Your task to perform on an android device: choose inbox layout in the gmail app Image 0: 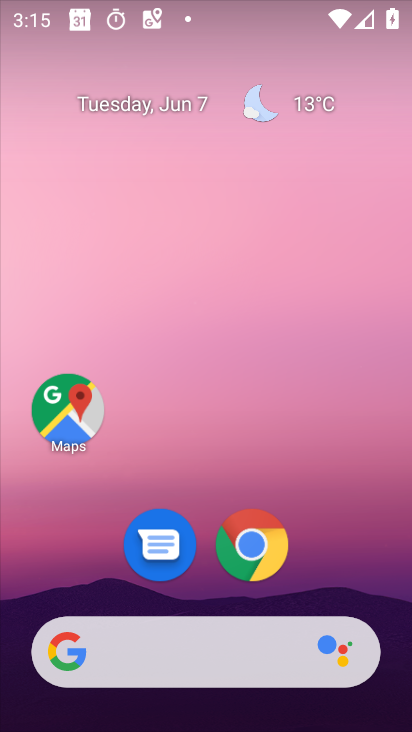
Step 0: drag from (354, 574) to (184, 45)
Your task to perform on an android device: choose inbox layout in the gmail app Image 1: 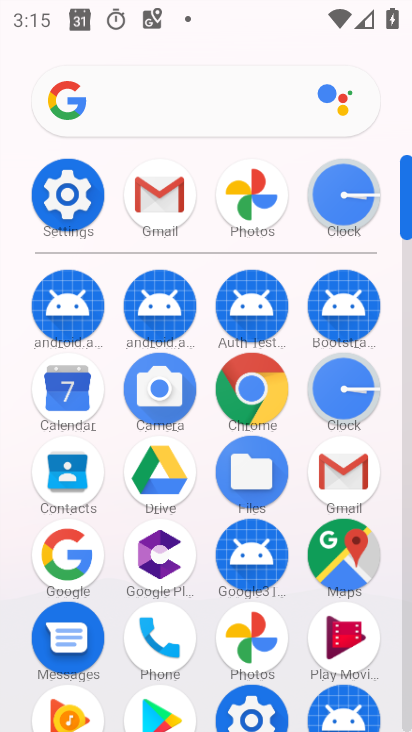
Step 1: click (345, 468)
Your task to perform on an android device: choose inbox layout in the gmail app Image 2: 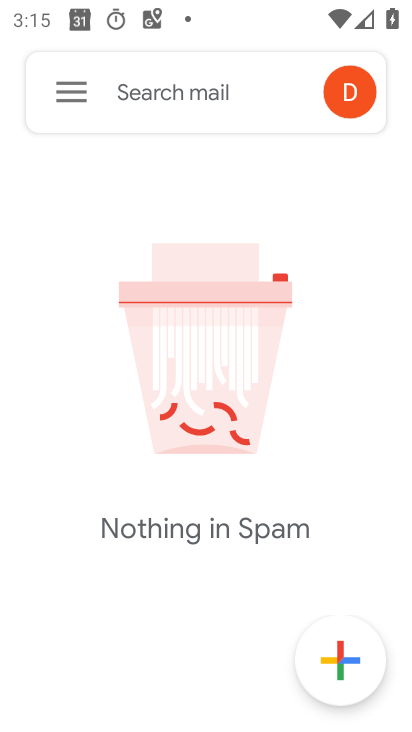
Step 2: click (74, 112)
Your task to perform on an android device: choose inbox layout in the gmail app Image 3: 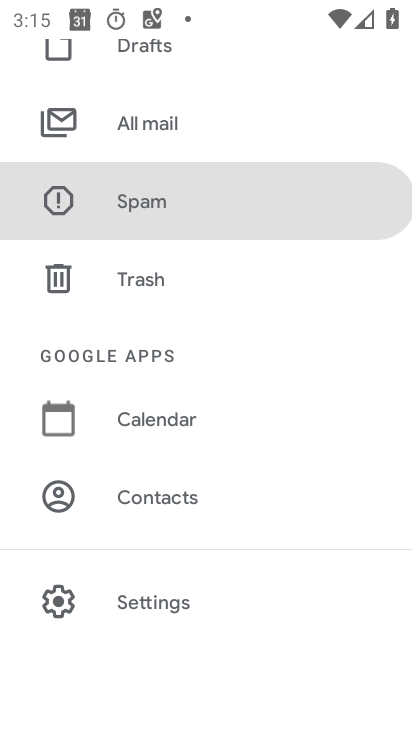
Step 3: click (170, 600)
Your task to perform on an android device: choose inbox layout in the gmail app Image 4: 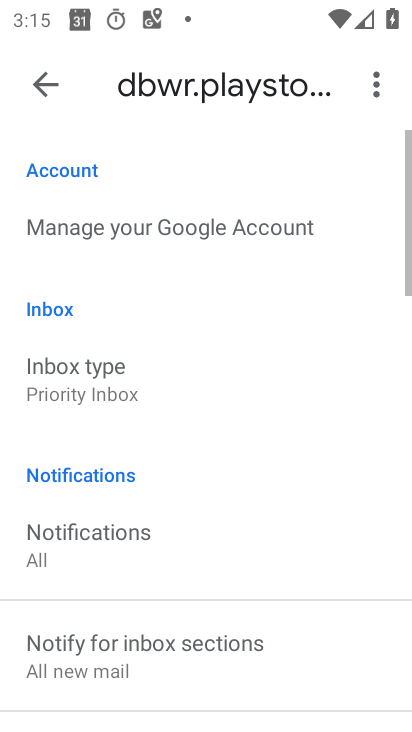
Step 4: click (116, 375)
Your task to perform on an android device: choose inbox layout in the gmail app Image 5: 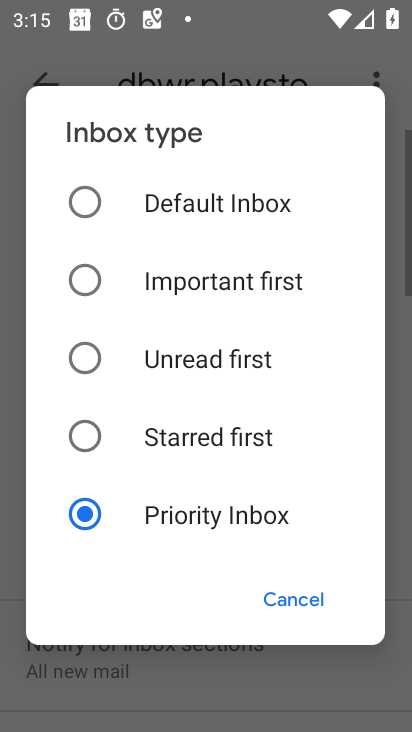
Step 5: click (191, 288)
Your task to perform on an android device: choose inbox layout in the gmail app Image 6: 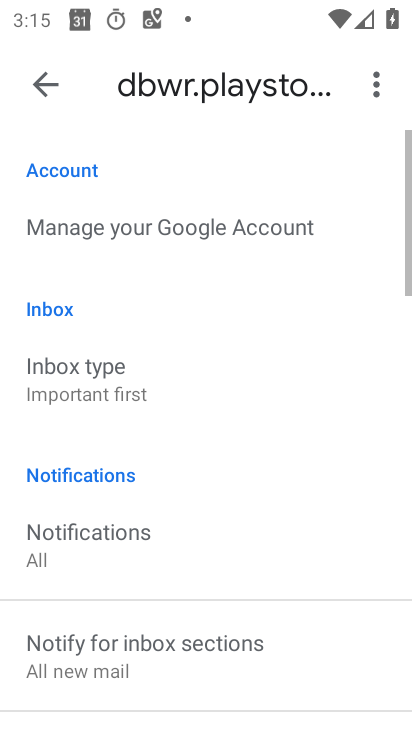
Step 6: task complete